Your task to perform on an android device: Turn on the flashlight Image 0: 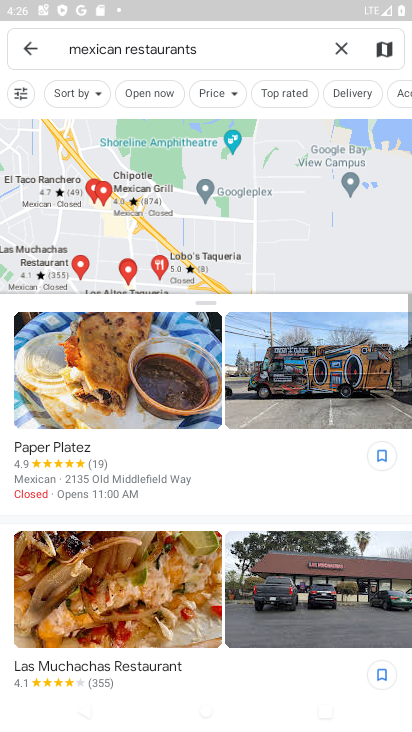
Step 0: press home button
Your task to perform on an android device: Turn on the flashlight Image 1: 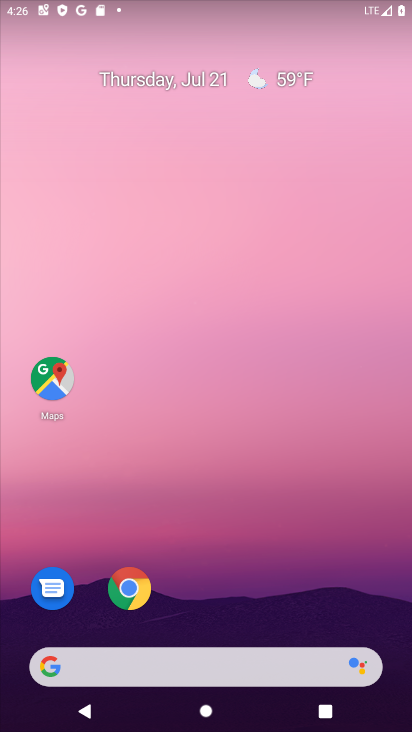
Step 1: drag from (227, 677) to (227, 94)
Your task to perform on an android device: Turn on the flashlight Image 2: 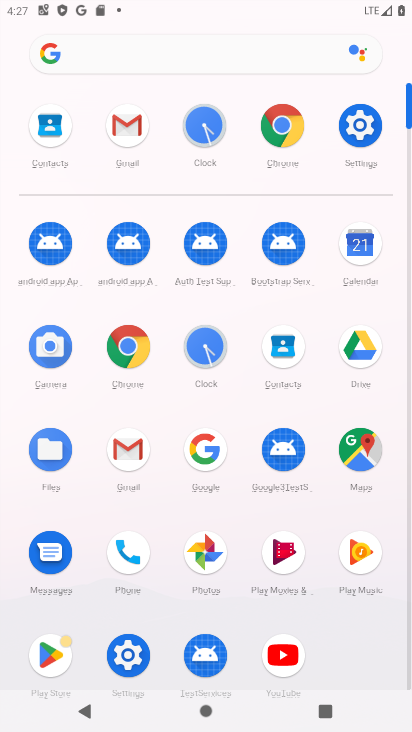
Step 2: click (361, 118)
Your task to perform on an android device: Turn on the flashlight Image 3: 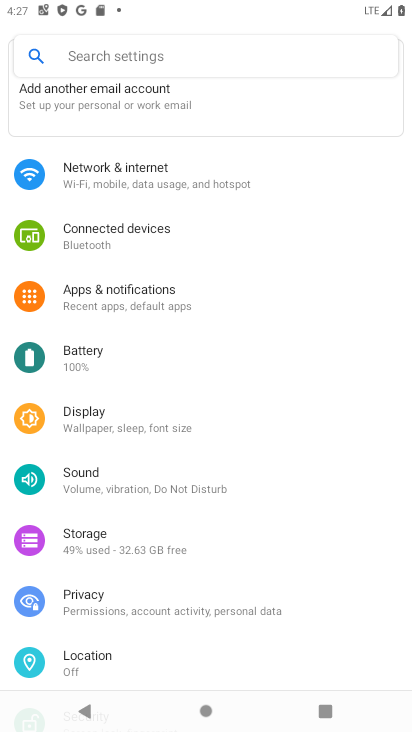
Step 3: task complete